Your task to perform on an android device: change the clock display to analog Image 0: 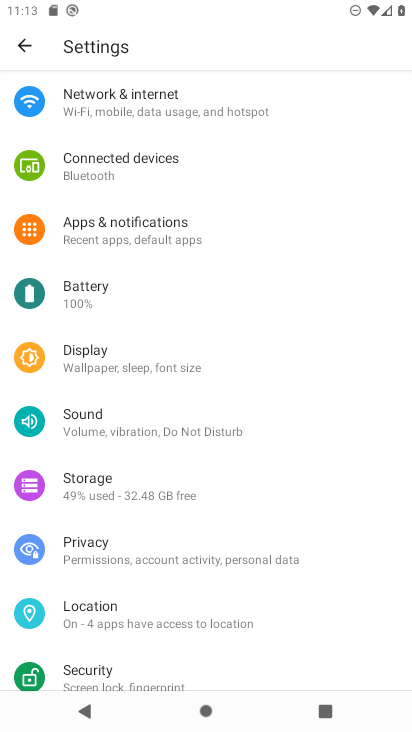
Step 0: press home button
Your task to perform on an android device: change the clock display to analog Image 1: 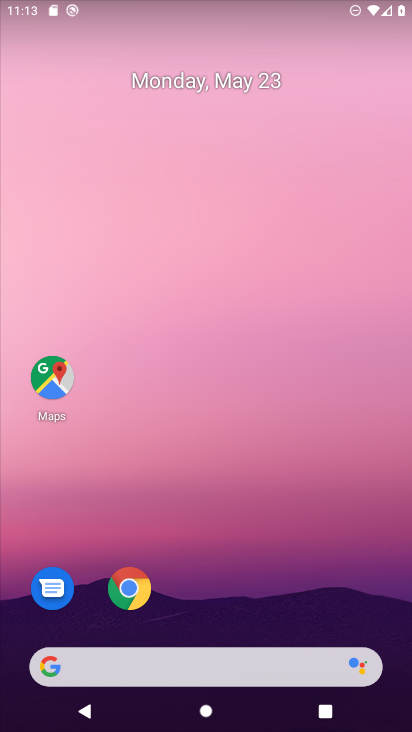
Step 1: drag from (311, 576) to (265, 46)
Your task to perform on an android device: change the clock display to analog Image 2: 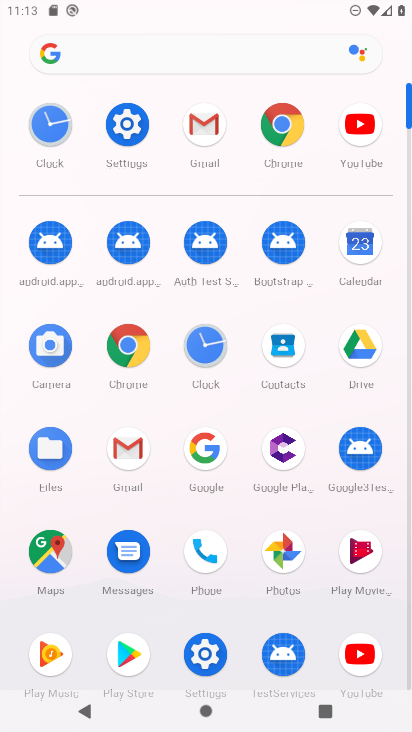
Step 2: click (211, 342)
Your task to perform on an android device: change the clock display to analog Image 3: 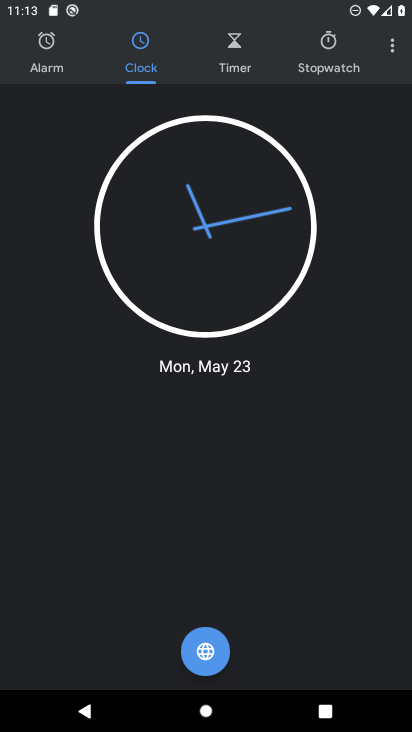
Step 3: click (393, 48)
Your task to perform on an android device: change the clock display to analog Image 4: 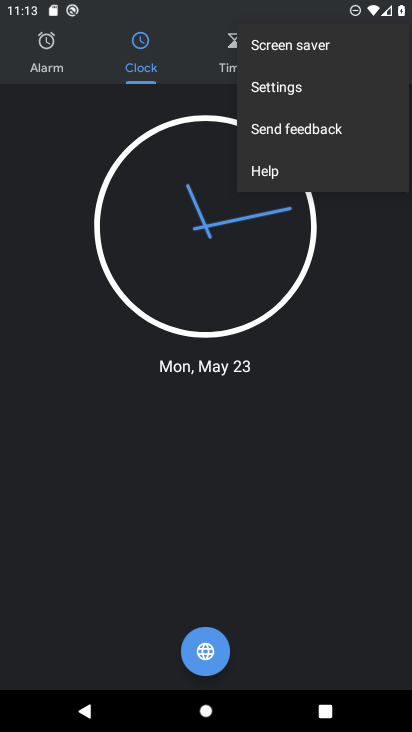
Step 4: click (294, 85)
Your task to perform on an android device: change the clock display to analog Image 5: 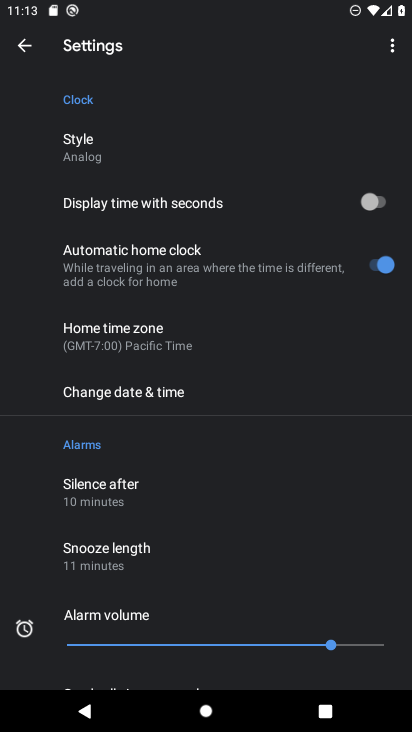
Step 5: click (66, 138)
Your task to perform on an android device: change the clock display to analog Image 6: 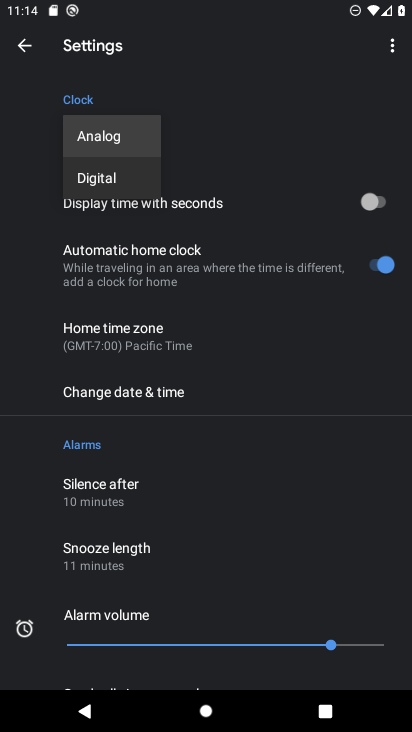
Step 6: task complete